Your task to perform on an android device: Clear all items from cart on bestbuy.com. Search for usb-c on bestbuy.com, select the first entry, and add it to the cart. Image 0: 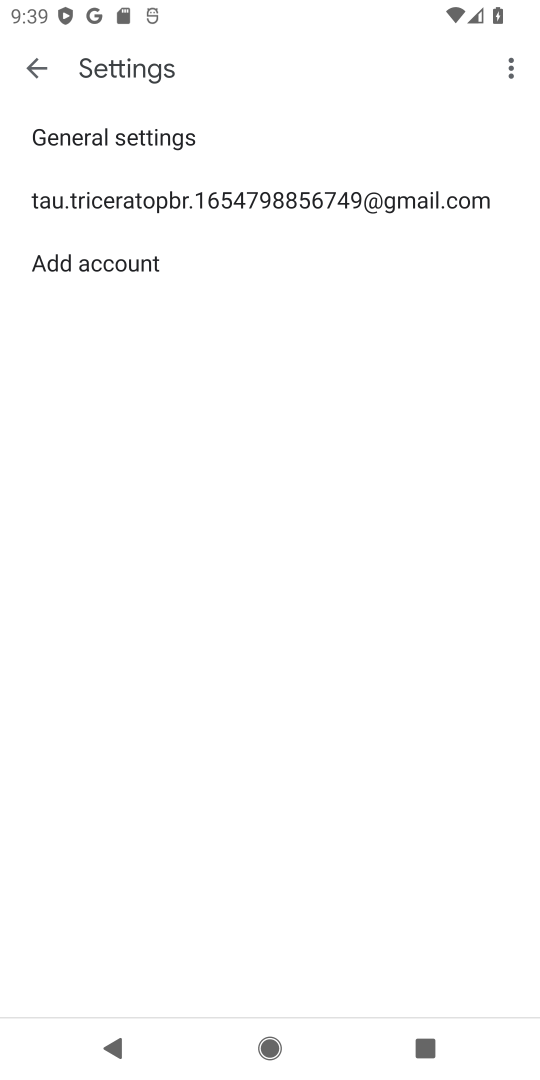
Step 0: press home button
Your task to perform on an android device: Clear all items from cart on bestbuy.com. Search for usb-c on bestbuy.com, select the first entry, and add it to the cart. Image 1: 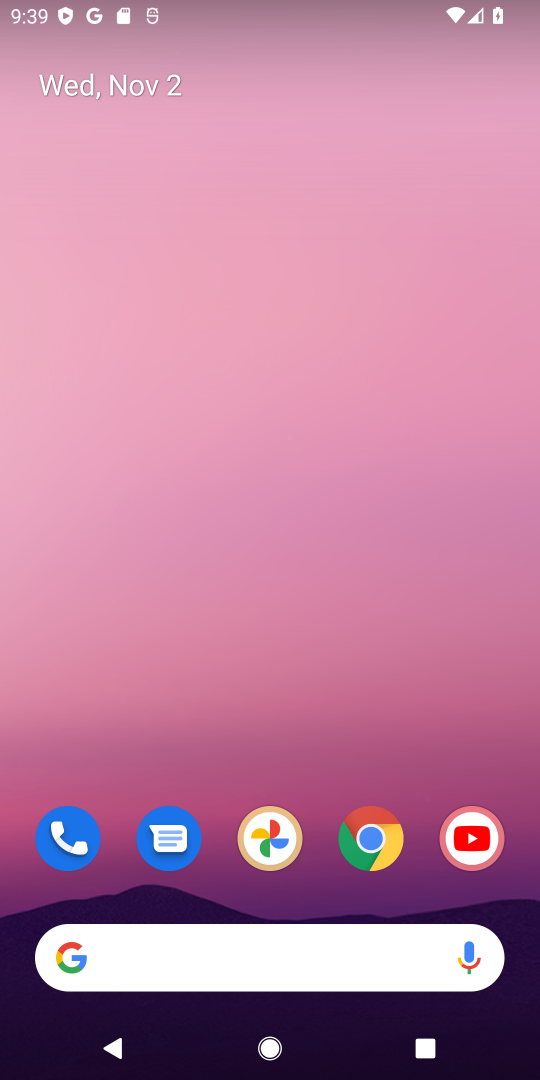
Step 1: click (386, 837)
Your task to perform on an android device: Clear all items from cart on bestbuy.com. Search for usb-c on bestbuy.com, select the first entry, and add it to the cart. Image 2: 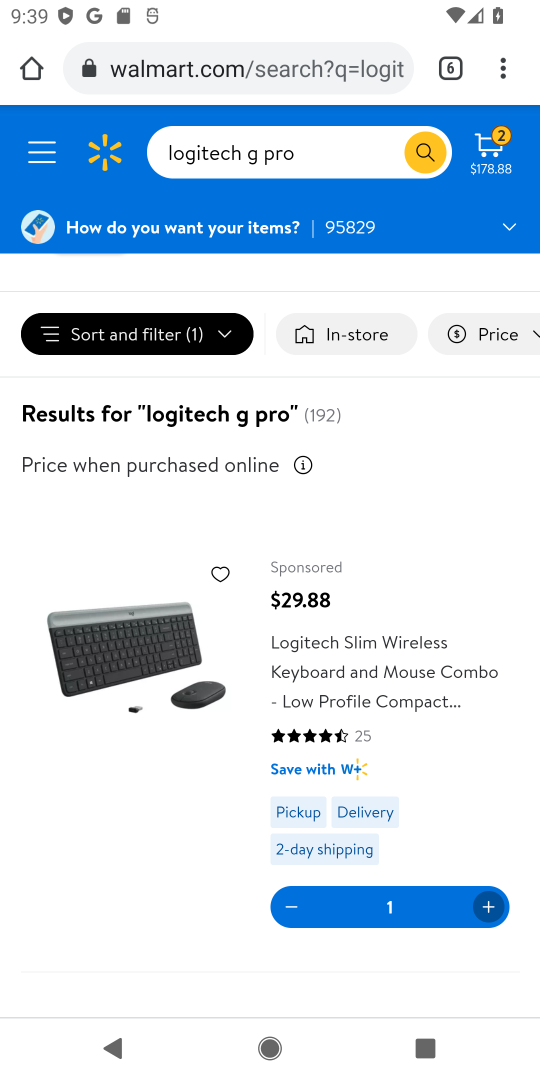
Step 2: click (449, 64)
Your task to perform on an android device: Clear all items from cart on bestbuy.com. Search for usb-c on bestbuy.com, select the first entry, and add it to the cart. Image 3: 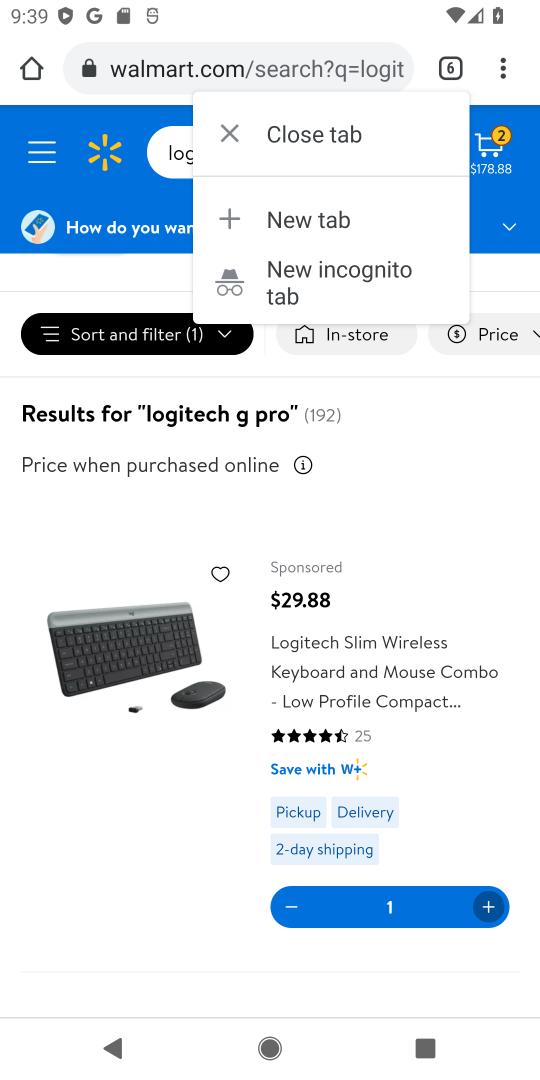
Step 3: click (449, 64)
Your task to perform on an android device: Clear all items from cart on bestbuy.com. Search for usb-c on bestbuy.com, select the first entry, and add it to the cart. Image 4: 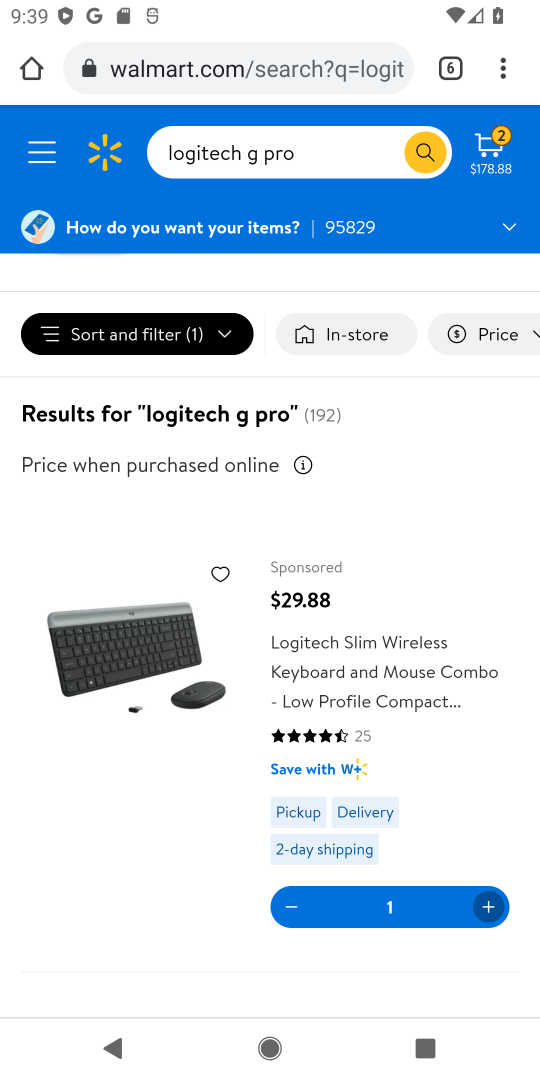
Step 4: click (449, 64)
Your task to perform on an android device: Clear all items from cart on bestbuy.com. Search for usb-c on bestbuy.com, select the first entry, and add it to the cart. Image 5: 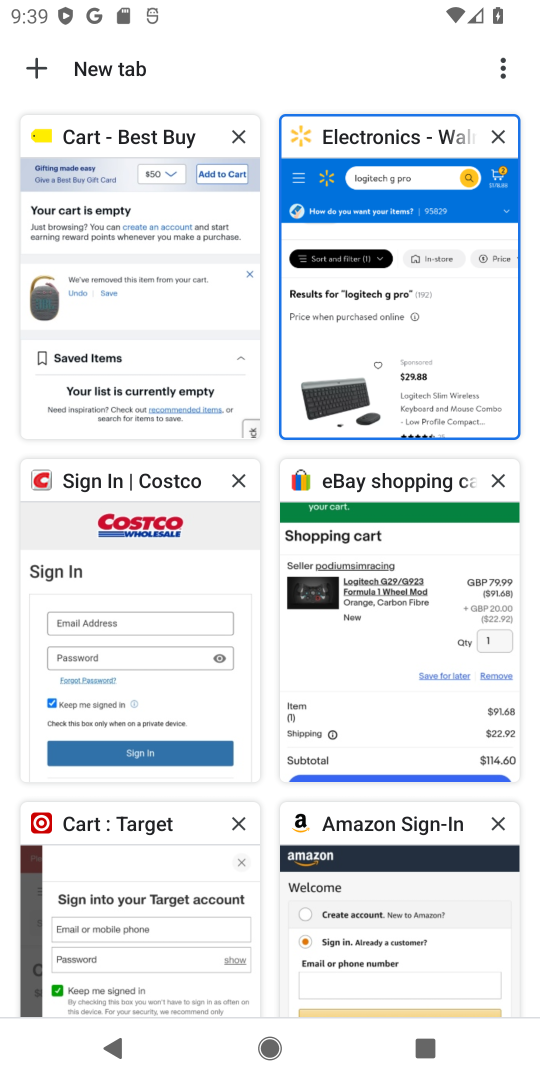
Step 5: click (87, 205)
Your task to perform on an android device: Clear all items from cart on bestbuy.com. Search for usb-c on bestbuy.com, select the first entry, and add it to the cart. Image 6: 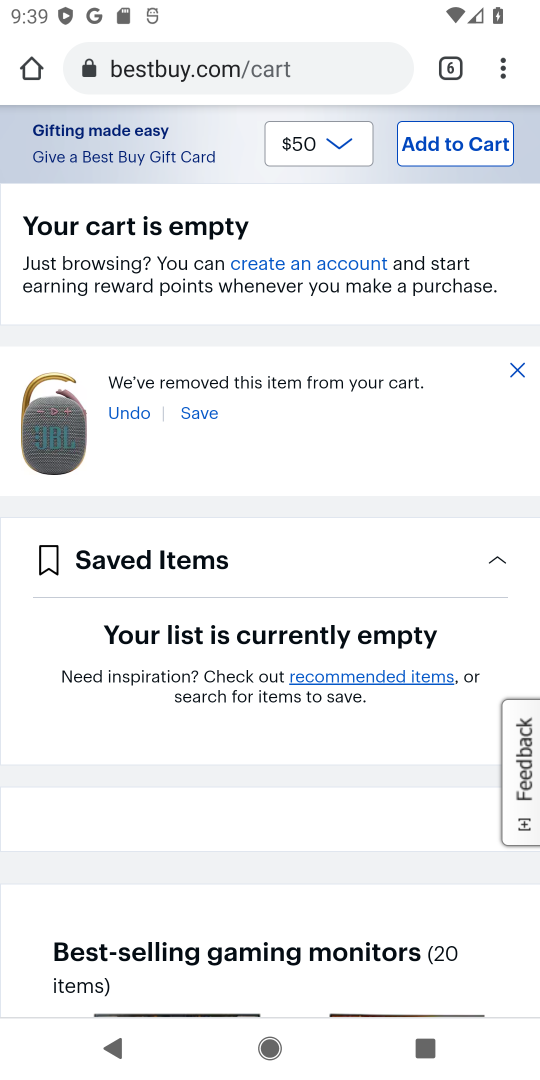
Step 6: drag from (483, 260) to (174, 1031)
Your task to perform on an android device: Clear all items from cart on bestbuy.com. Search for usb-c on bestbuy.com, select the first entry, and add it to the cart. Image 7: 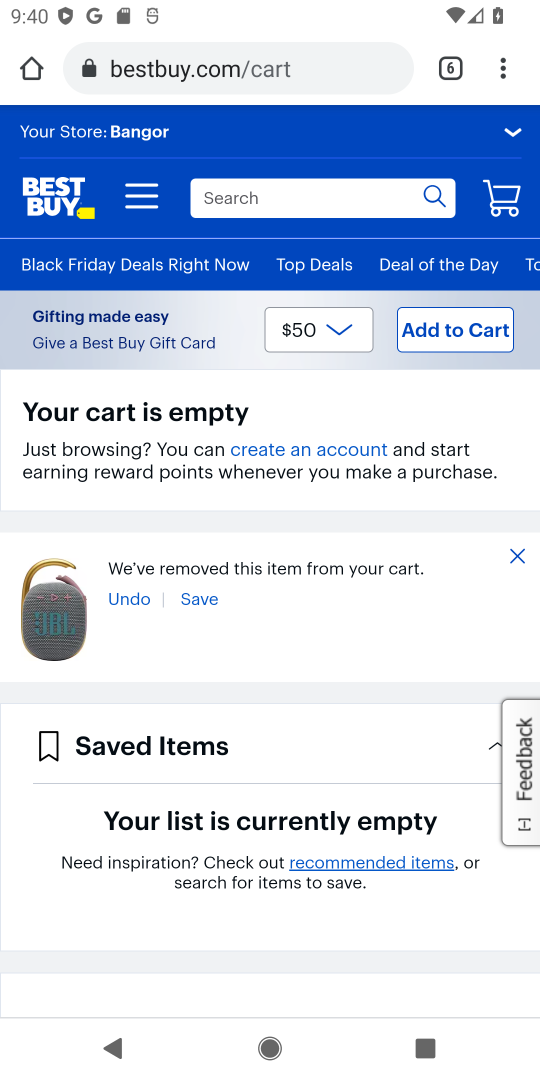
Step 7: click (212, 198)
Your task to perform on an android device: Clear all items from cart on bestbuy.com. Search for usb-c on bestbuy.com, select the first entry, and add it to the cart. Image 8: 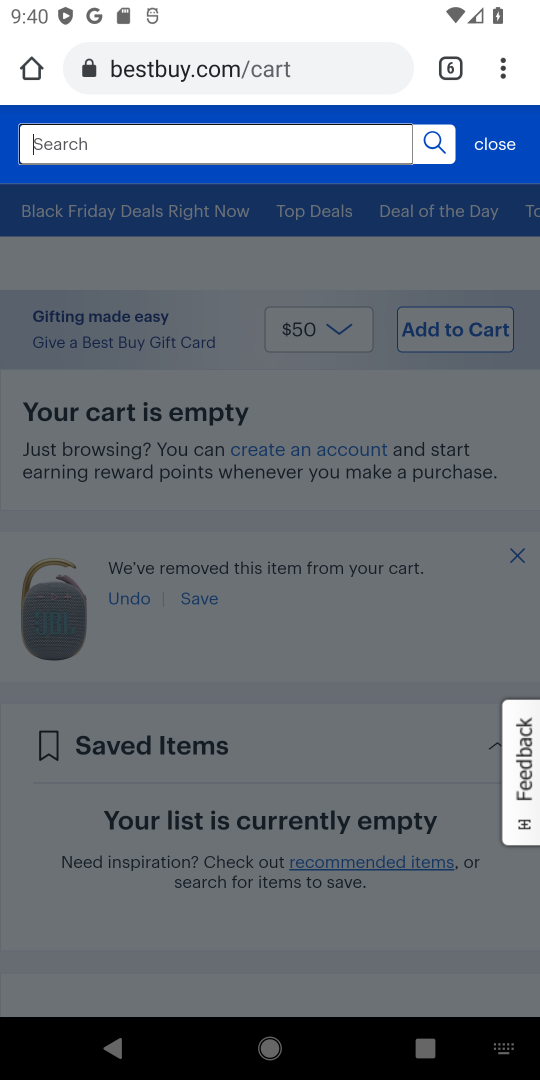
Step 8: type "usb-c "
Your task to perform on an android device: Clear all items from cart on bestbuy.com. Search for usb-c on bestbuy.com, select the first entry, and add it to the cart. Image 9: 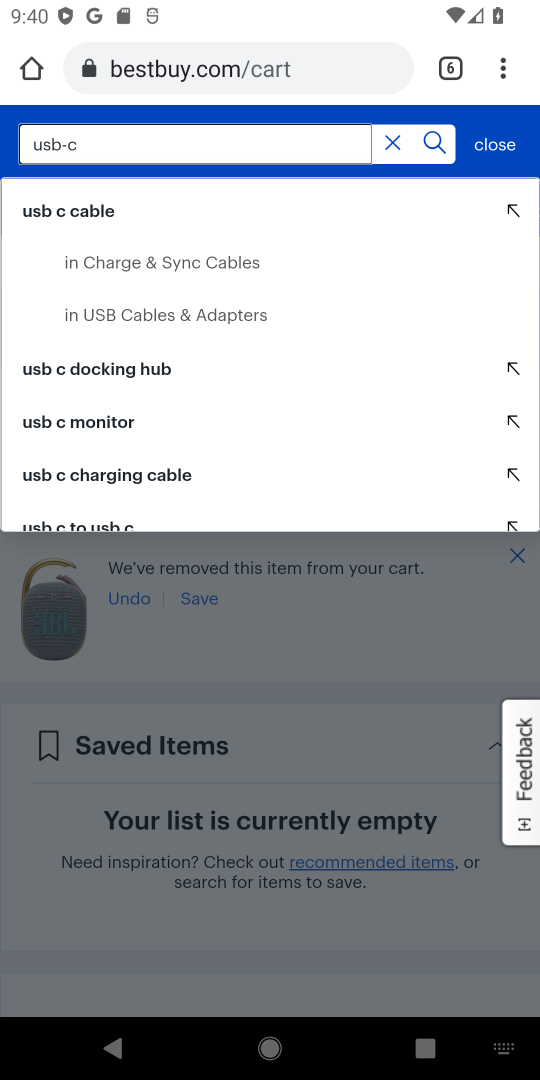
Step 9: click (56, 218)
Your task to perform on an android device: Clear all items from cart on bestbuy.com. Search for usb-c on bestbuy.com, select the first entry, and add it to the cart. Image 10: 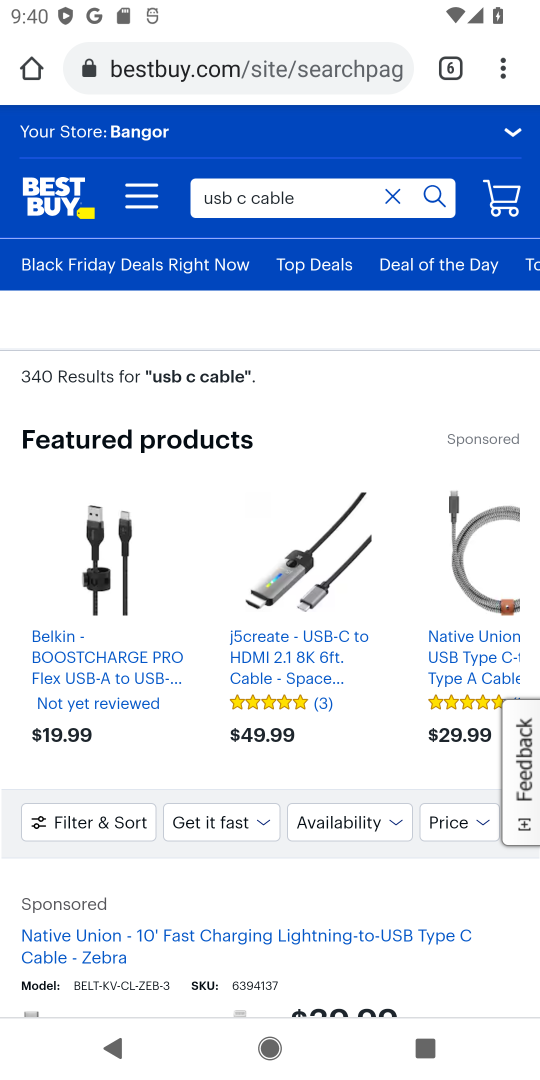
Step 10: drag from (268, 896) to (304, 511)
Your task to perform on an android device: Clear all items from cart on bestbuy.com. Search for usb-c on bestbuy.com, select the first entry, and add it to the cart. Image 11: 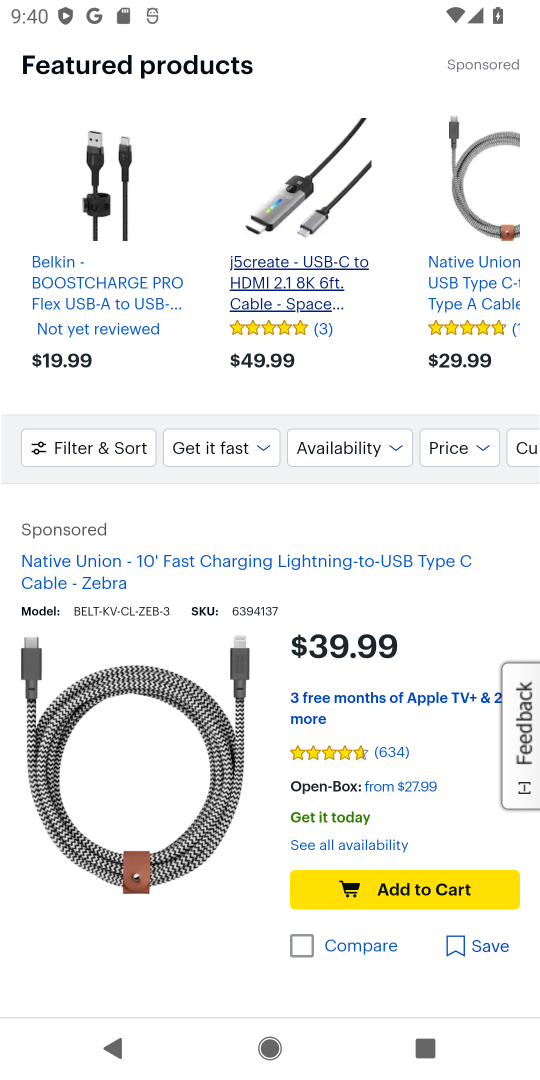
Step 11: click (377, 884)
Your task to perform on an android device: Clear all items from cart on bestbuy.com. Search for usb-c on bestbuy.com, select the first entry, and add it to the cart. Image 12: 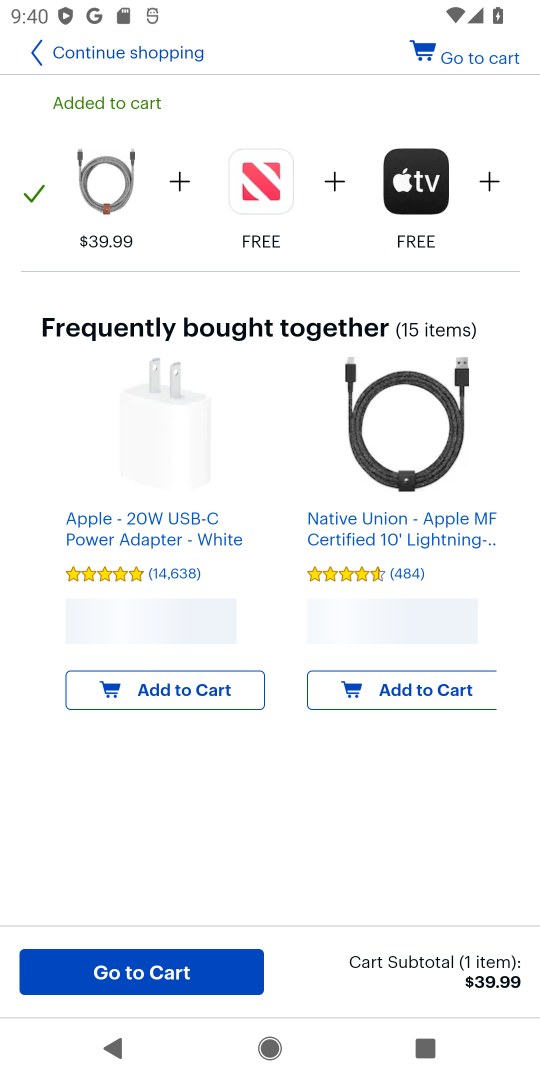
Step 12: task complete